Your task to perform on an android device: toggle wifi Image 0: 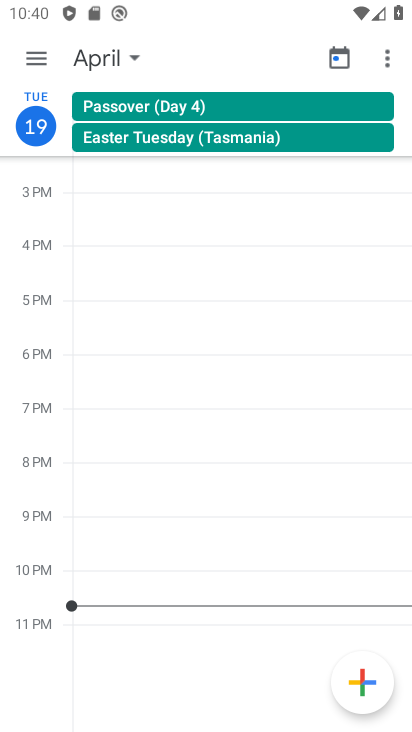
Step 0: press home button
Your task to perform on an android device: toggle wifi Image 1: 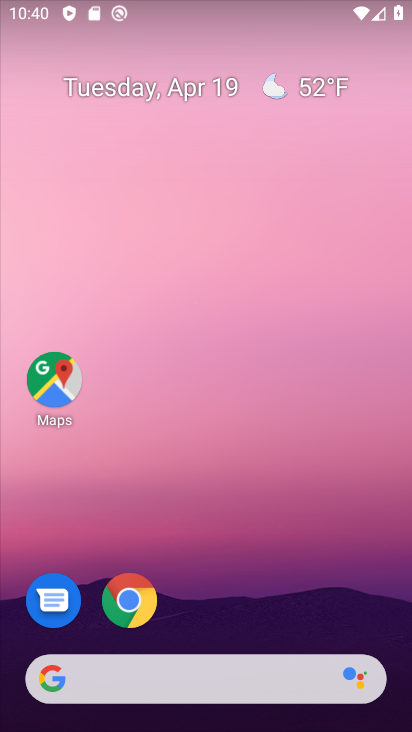
Step 1: drag from (211, 655) to (180, 85)
Your task to perform on an android device: toggle wifi Image 2: 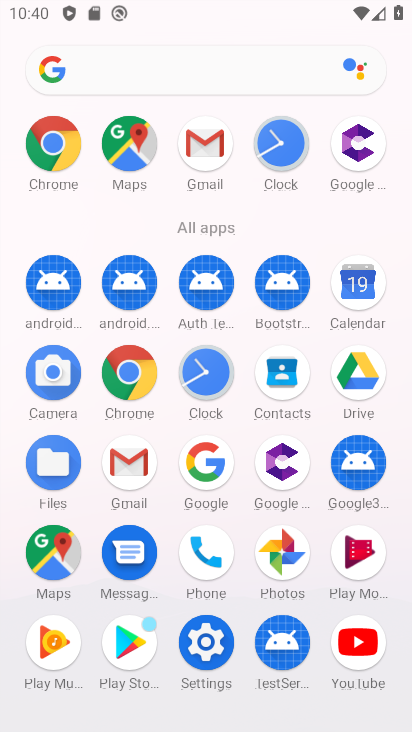
Step 2: click (202, 640)
Your task to perform on an android device: toggle wifi Image 3: 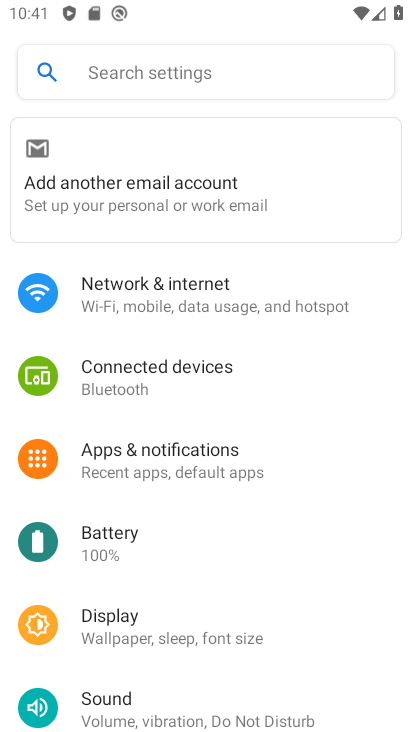
Step 3: click (87, 303)
Your task to perform on an android device: toggle wifi Image 4: 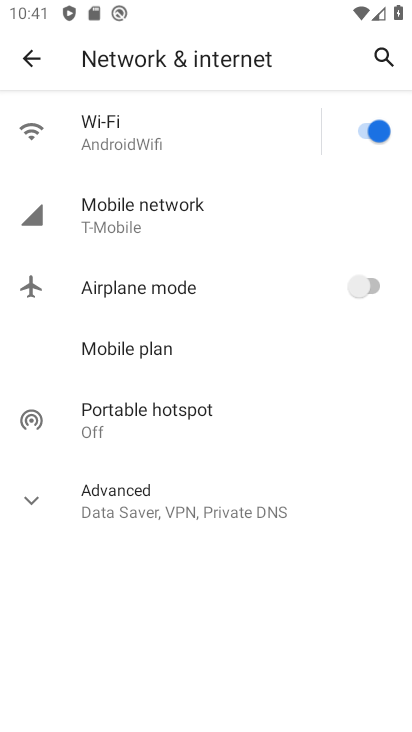
Step 4: click (351, 132)
Your task to perform on an android device: toggle wifi Image 5: 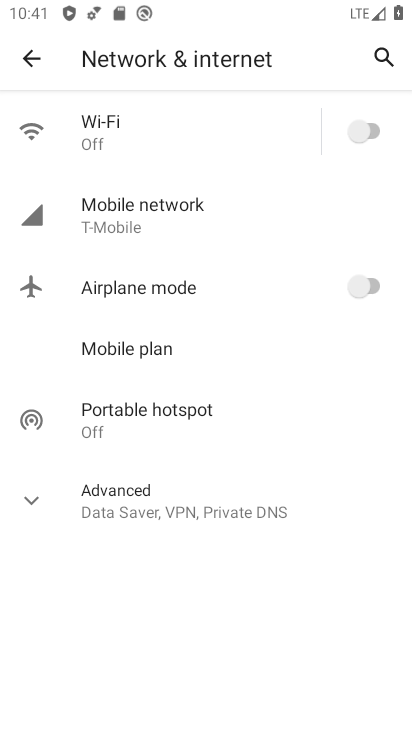
Step 5: task complete